Your task to perform on an android device: Open the calendar app, open the side menu, and click the "Day" option Image 0: 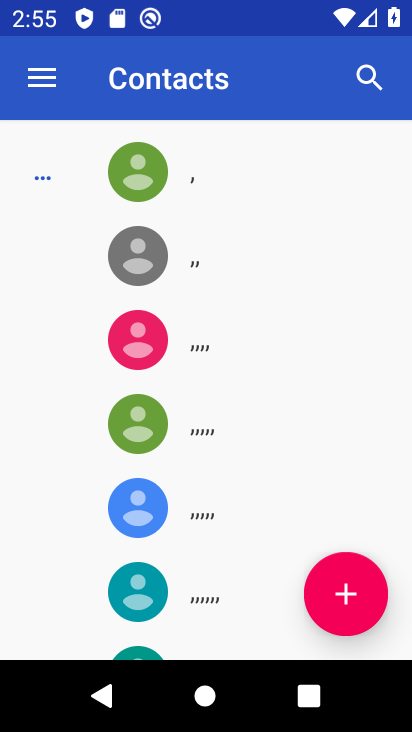
Step 0: press home button
Your task to perform on an android device: Open the calendar app, open the side menu, and click the "Day" option Image 1: 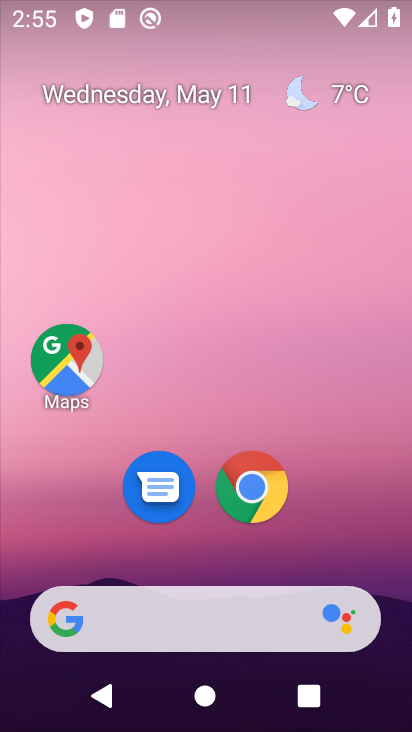
Step 1: drag from (313, 581) to (275, 74)
Your task to perform on an android device: Open the calendar app, open the side menu, and click the "Day" option Image 2: 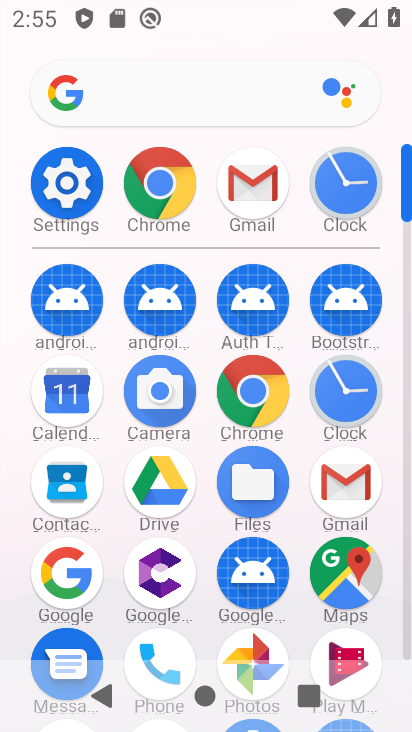
Step 2: click (77, 402)
Your task to perform on an android device: Open the calendar app, open the side menu, and click the "Day" option Image 3: 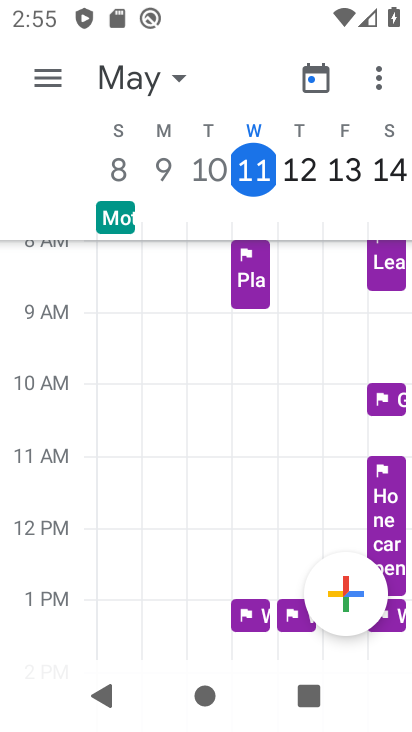
Step 3: click (47, 77)
Your task to perform on an android device: Open the calendar app, open the side menu, and click the "Day" option Image 4: 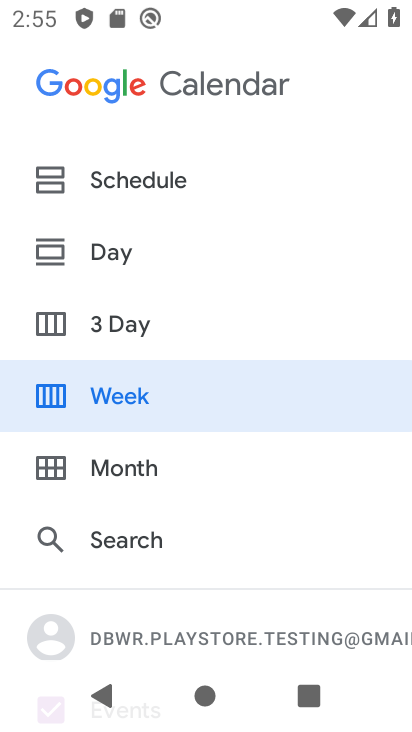
Step 4: click (147, 250)
Your task to perform on an android device: Open the calendar app, open the side menu, and click the "Day" option Image 5: 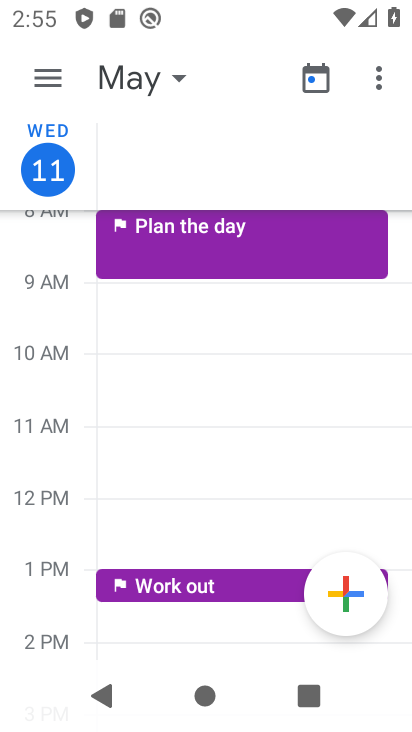
Step 5: task complete